Your task to perform on an android device: Check out the best rated books on Goodreads. Image 0: 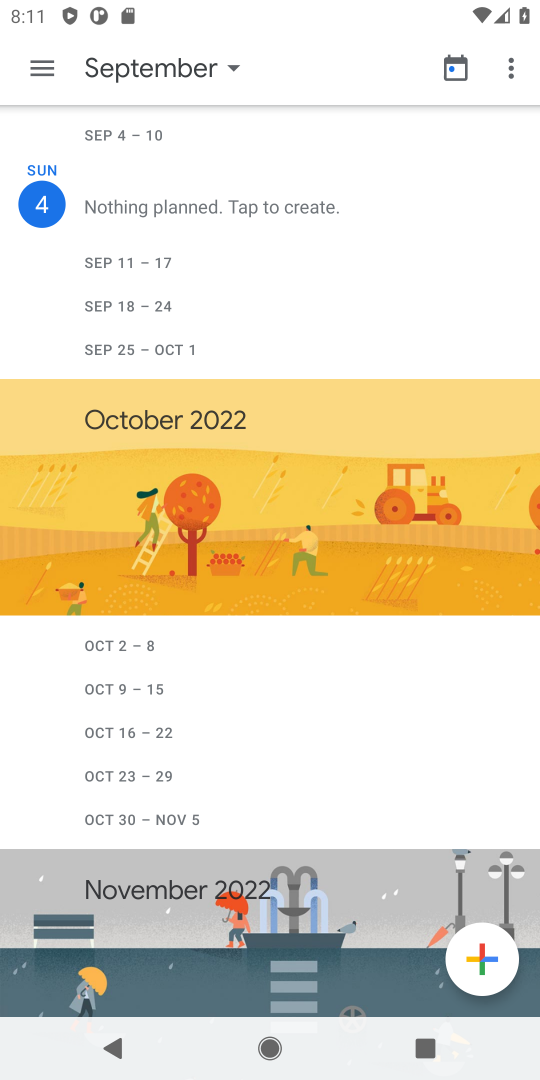
Step 0: press home button
Your task to perform on an android device: Check out the best rated books on Goodreads. Image 1: 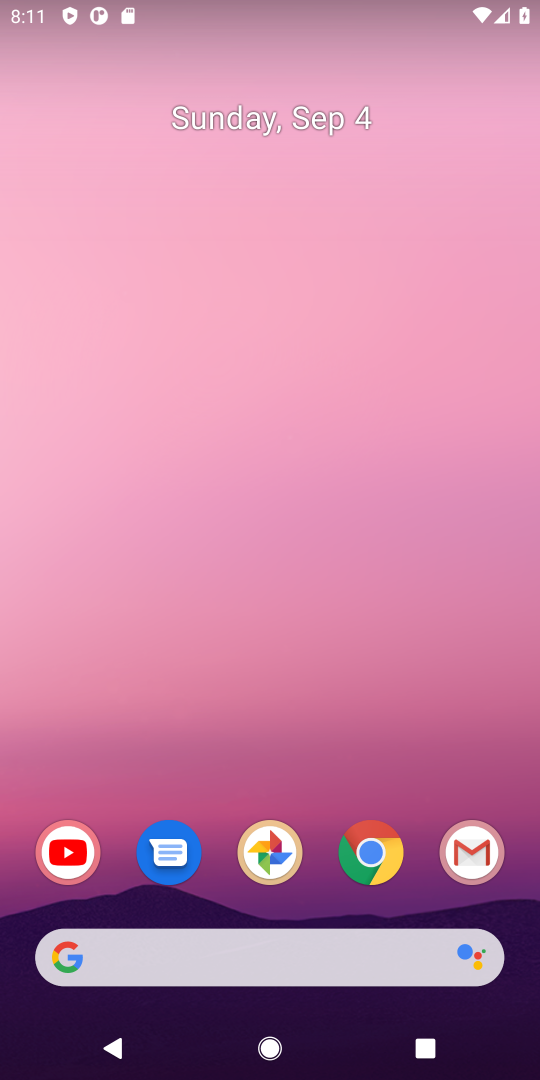
Step 1: drag from (435, 742) to (201, 33)
Your task to perform on an android device: Check out the best rated books on Goodreads. Image 2: 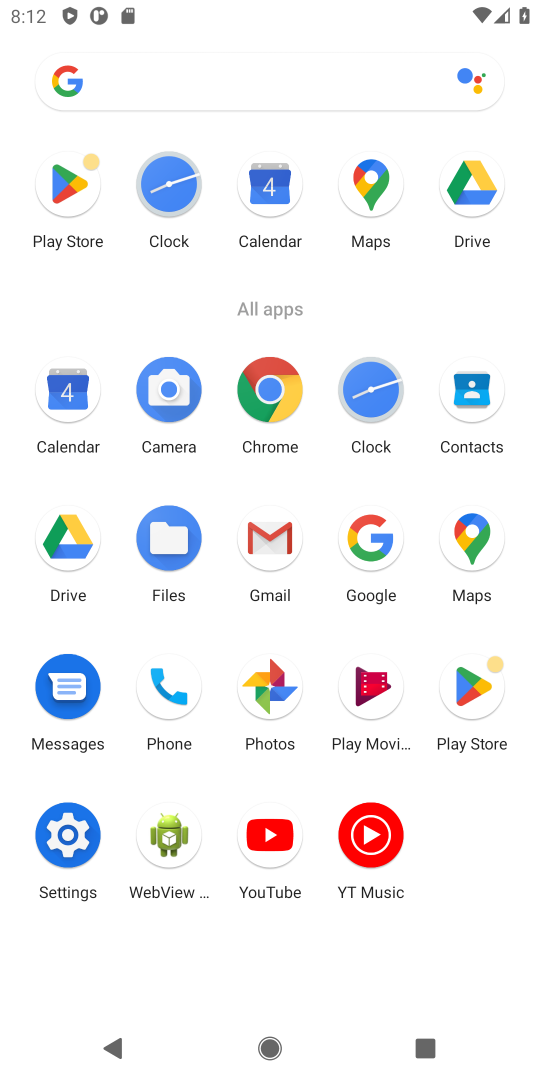
Step 2: click (360, 554)
Your task to perform on an android device: Check out the best rated books on Goodreads. Image 3: 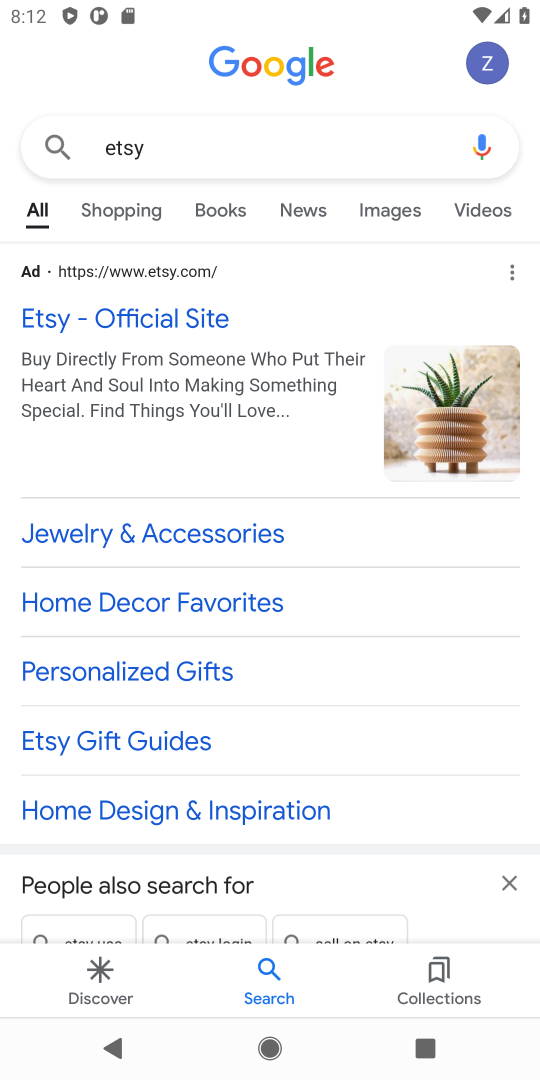
Step 3: press back button
Your task to perform on an android device: Check out the best rated books on Goodreads. Image 4: 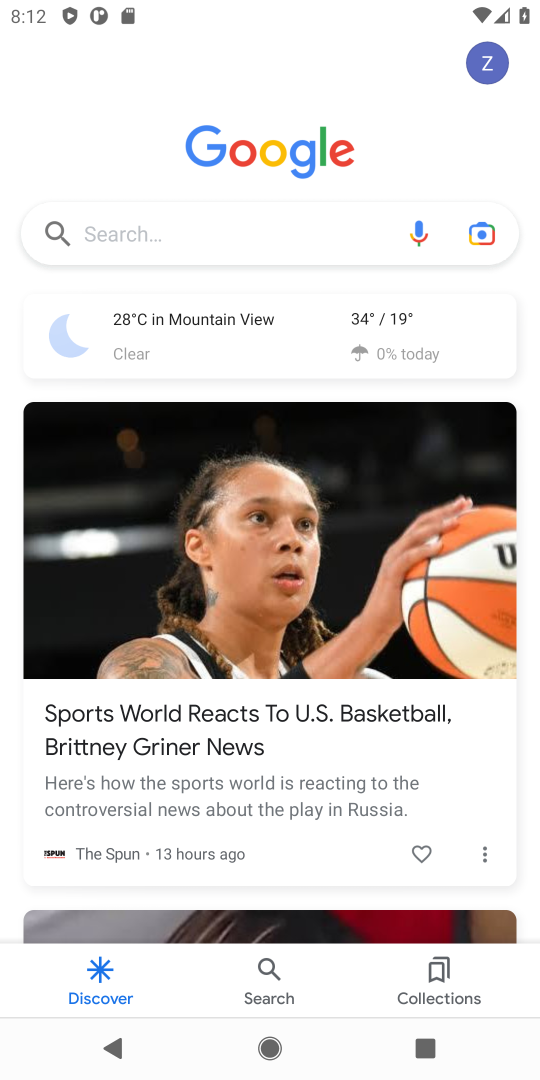
Step 4: click (203, 248)
Your task to perform on an android device: Check out the best rated books on Goodreads. Image 5: 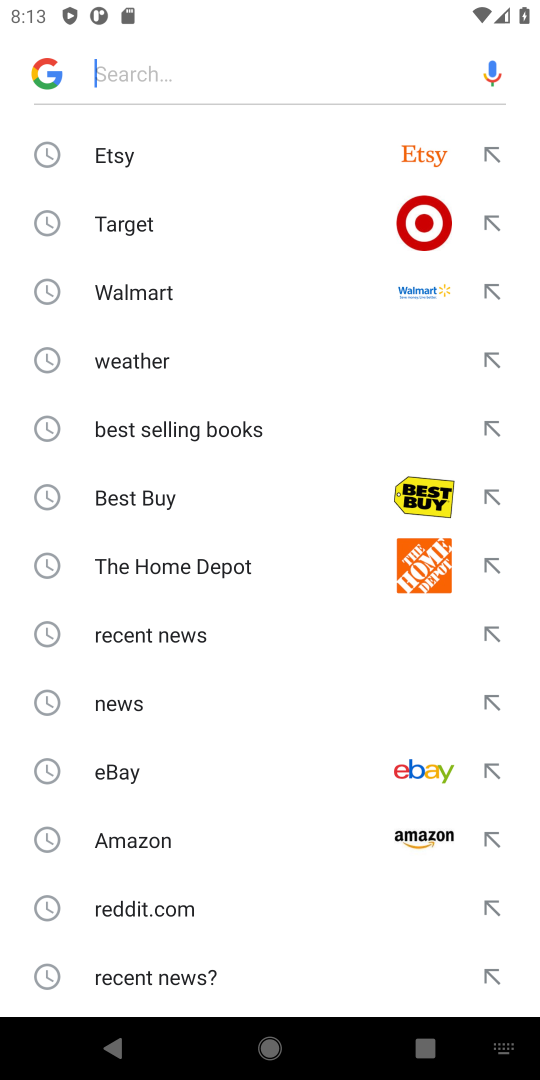
Step 5: type "Goodreads"
Your task to perform on an android device: Check out the best rated books on Goodreads. Image 6: 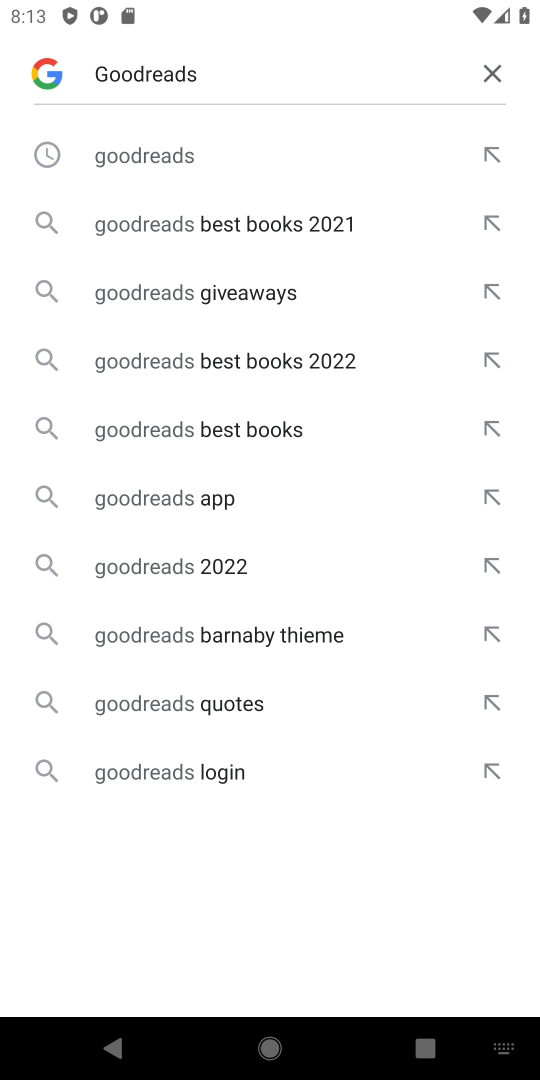
Step 6: click (211, 171)
Your task to perform on an android device: Check out the best rated books on Goodreads. Image 7: 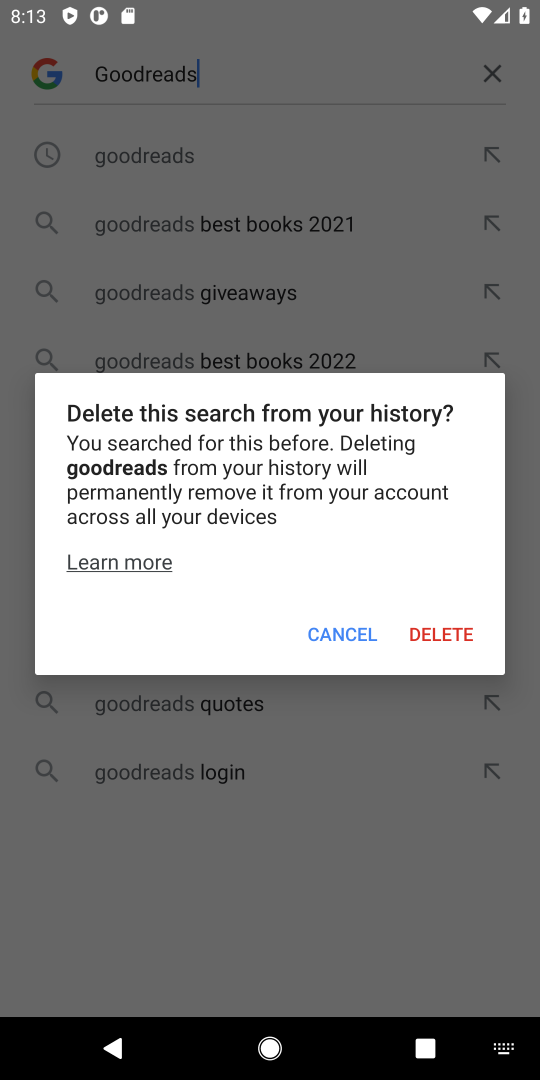
Step 7: click (357, 627)
Your task to perform on an android device: Check out the best rated books on Goodreads. Image 8: 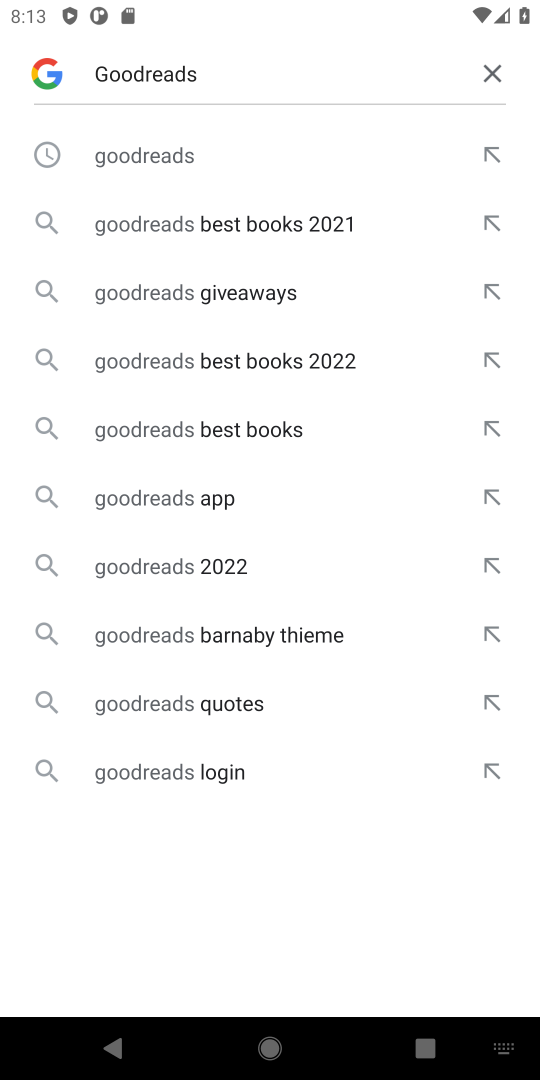
Step 8: click (175, 169)
Your task to perform on an android device: Check out the best rated books on Goodreads. Image 9: 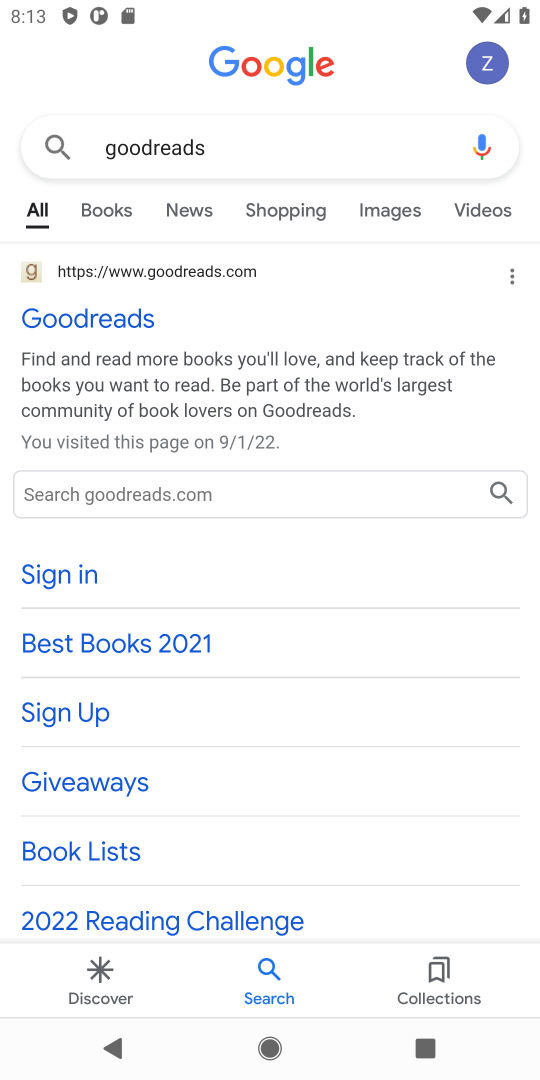
Step 9: click (120, 310)
Your task to perform on an android device: Check out the best rated books on Goodreads. Image 10: 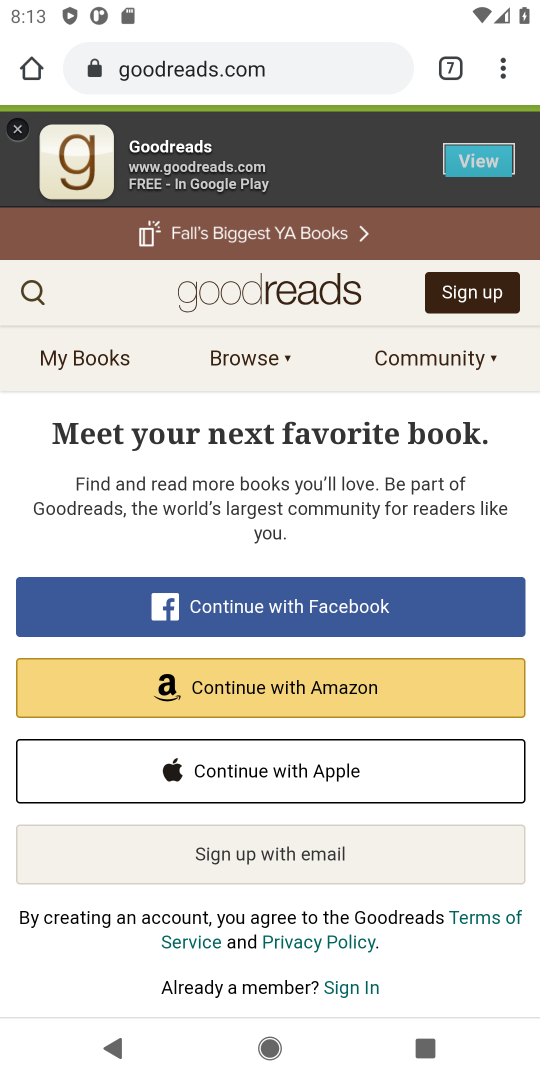
Step 10: task complete